Your task to perform on an android device: add a contact in the contacts app Image 0: 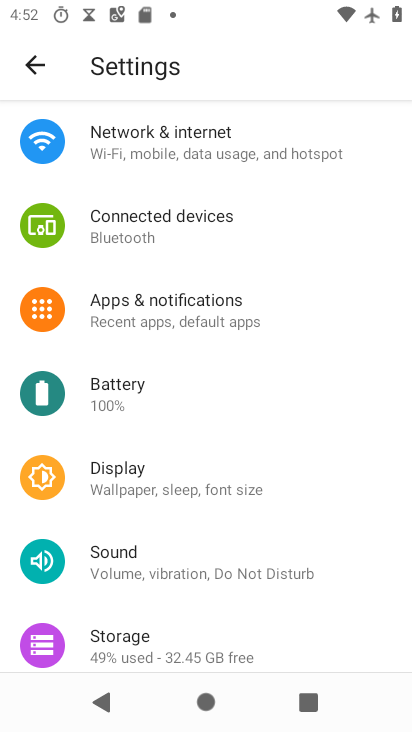
Step 0: press home button
Your task to perform on an android device: add a contact in the contacts app Image 1: 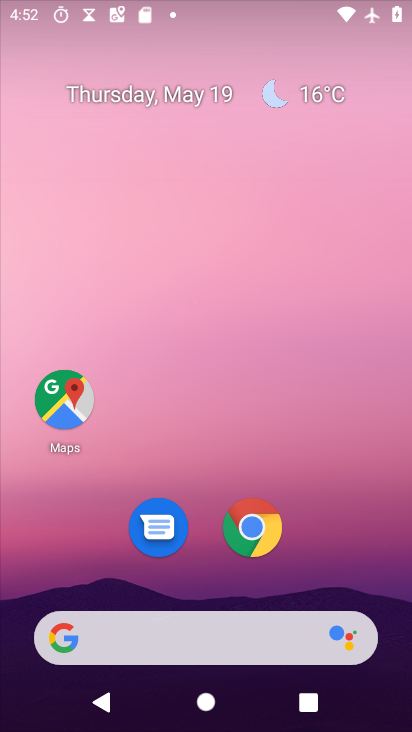
Step 1: drag from (340, 552) to (166, 4)
Your task to perform on an android device: add a contact in the contacts app Image 2: 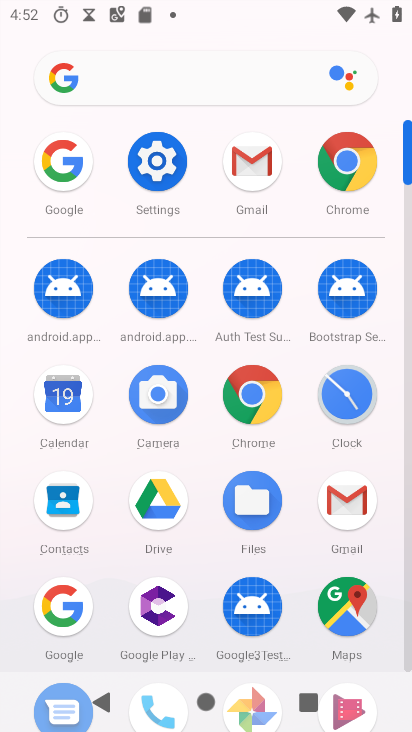
Step 2: click (60, 508)
Your task to perform on an android device: add a contact in the contacts app Image 3: 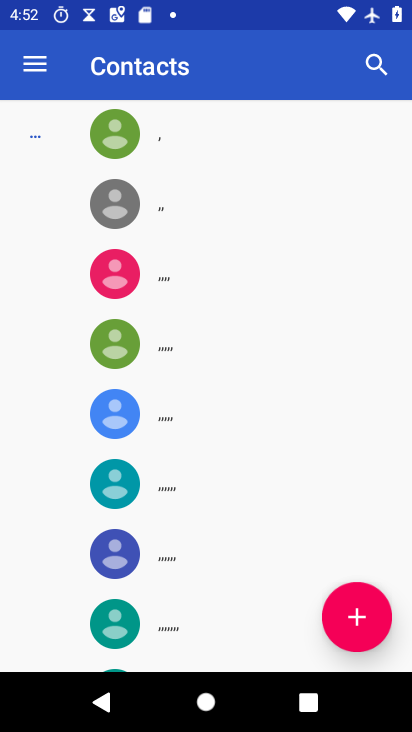
Step 3: click (356, 613)
Your task to perform on an android device: add a contact in the contacts app Image 4: 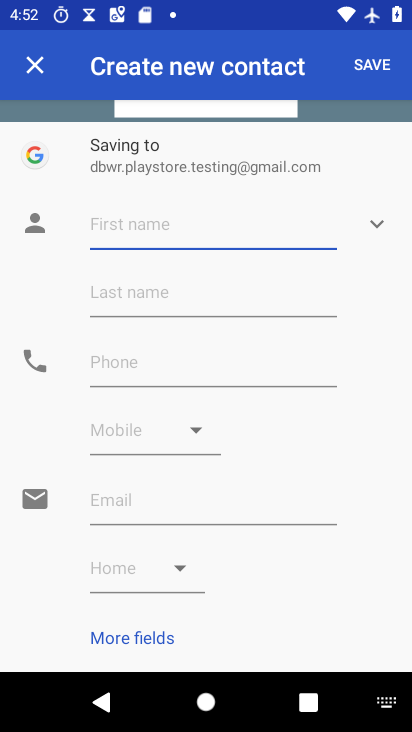
Step 4: type "hhggh"
Your task to perform on an android device: add a contact in the contacts app Image 5: 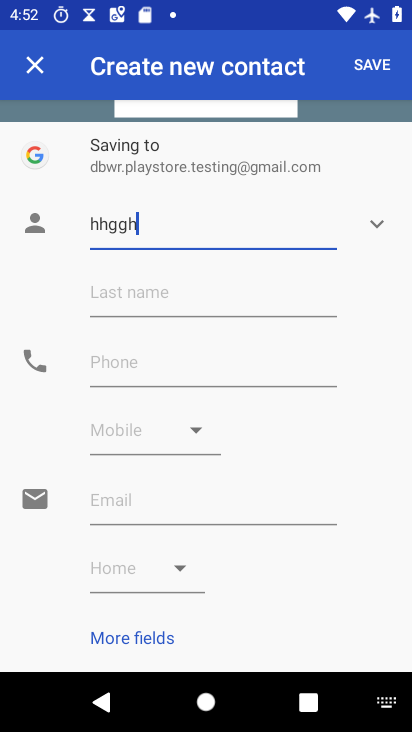
Step 5: type ""
Your task to perform on an android device: add a contact in the contacts app Image 6: 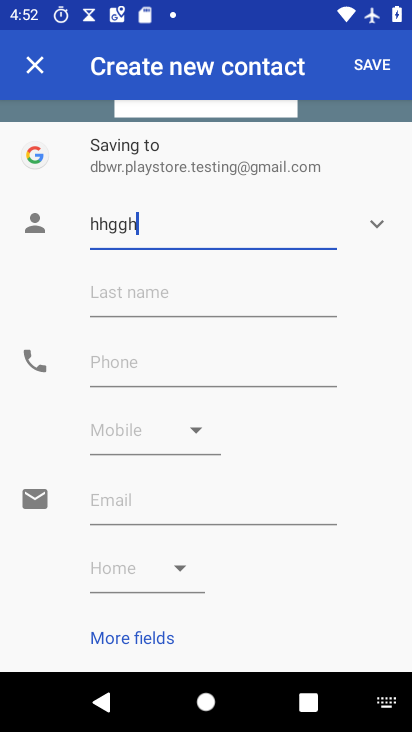
Step 6: click (300, 297)
Your task to perform on an android device: add a contact in the contacts app Image 7: 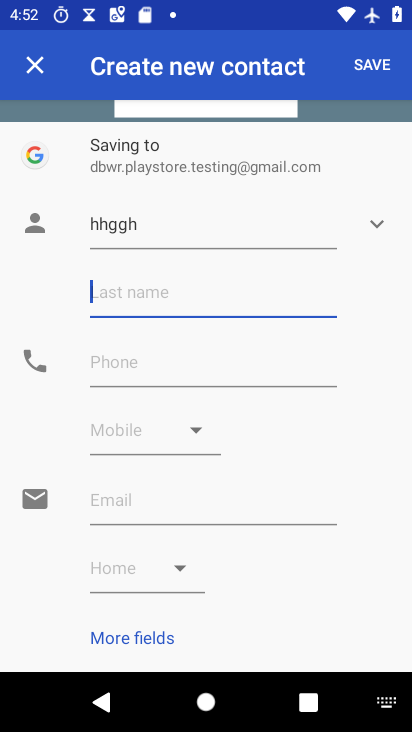
Step 7: type "ttfry"
Your task to perform on an android device: add a contact in the contacts app Image 8: 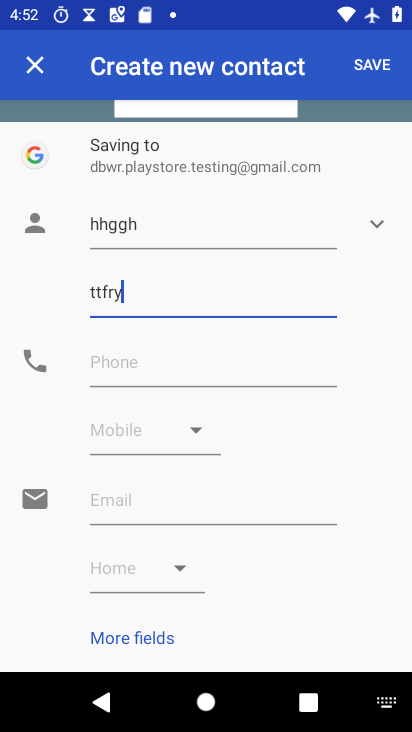
Step 8: type ""
Your task to perform on an android device: add a contact in the contacts app Image 9: 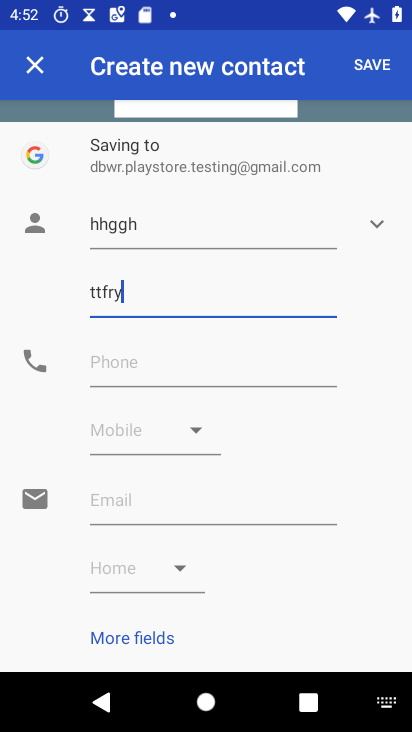
Step 9: click (205, 379)
Your task to perform on an android device: add a contact in the contacts app Image 10: 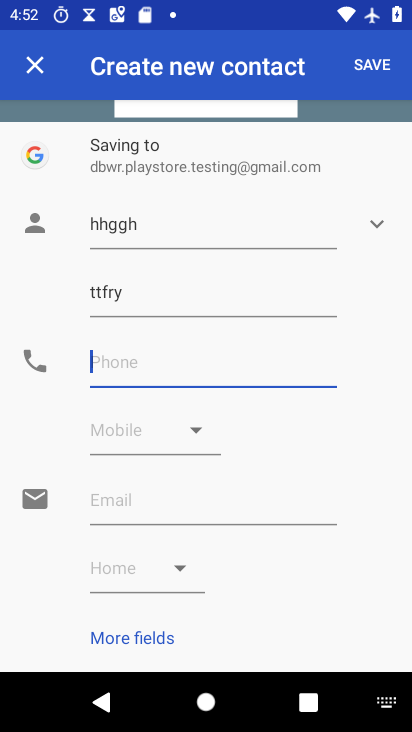
Step 10: type "54646546"
Your task to perform on an android device: add a contact in the contacts app Image 11: 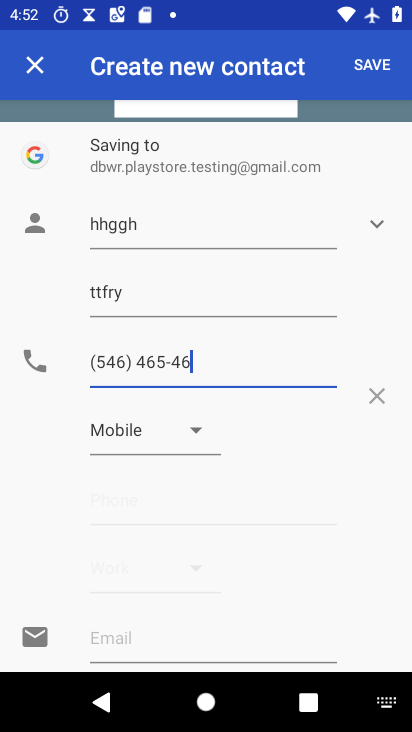
Step 11: type ""
Your task to perform on an android device: add a contact in the contacts app Image 12: 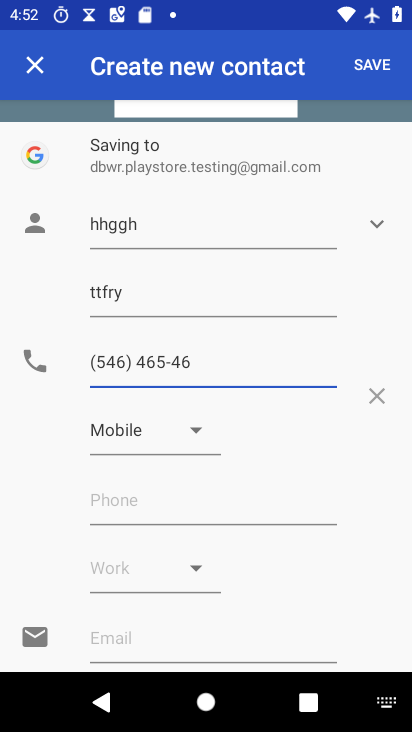
Step 12: click (366, 65)
Your task to perform on an android device: add a contact in the contacts app Image 13: 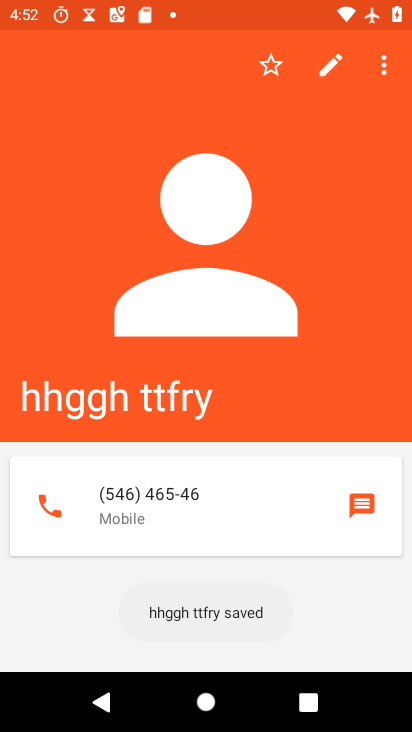
Step 13: task complete